Your task to perform on an android device: change the clock display to show seconds Image 0: 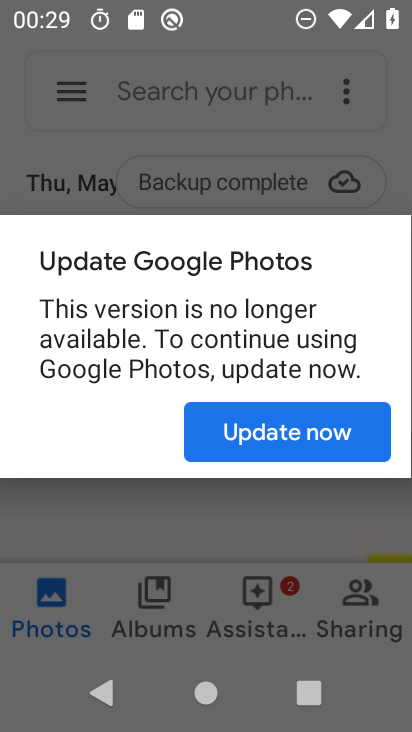
Step 0: press home button
Your task to perform on an android device: change the clock display to show seconds Image 1: 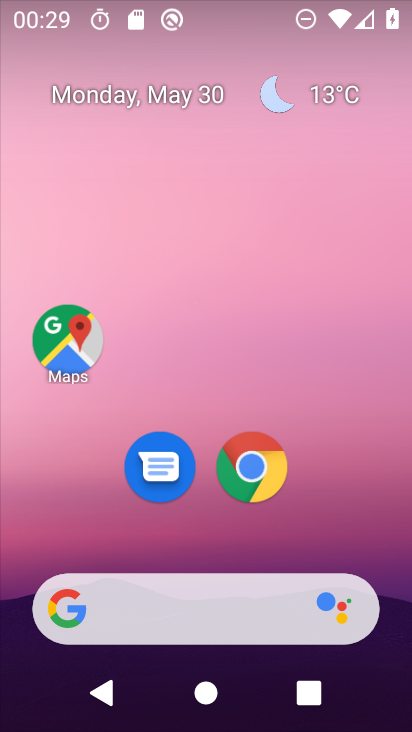
Step 1: drag from (204, 537) to (191, 185)
Your task to perform on an android device: change the clock display to show seconds Image 2: 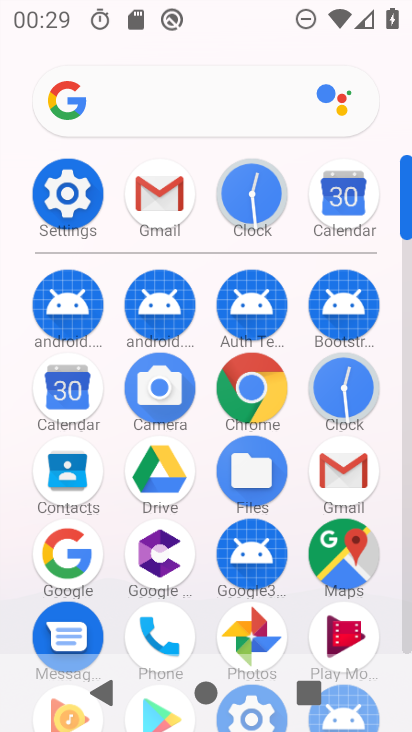
Step 2: click (237, 202)
Your task to perform on an android device: change the clock display to show seconds Image 3: 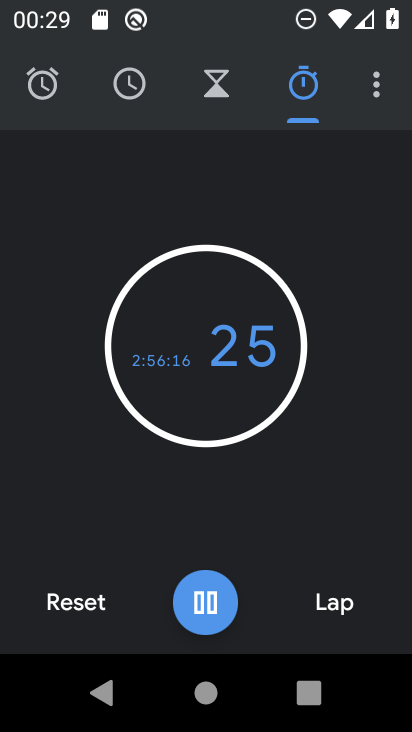
Step 3: click (363, 96)
Your task to perform on an android device: change the clock display to show seconds Image 4: 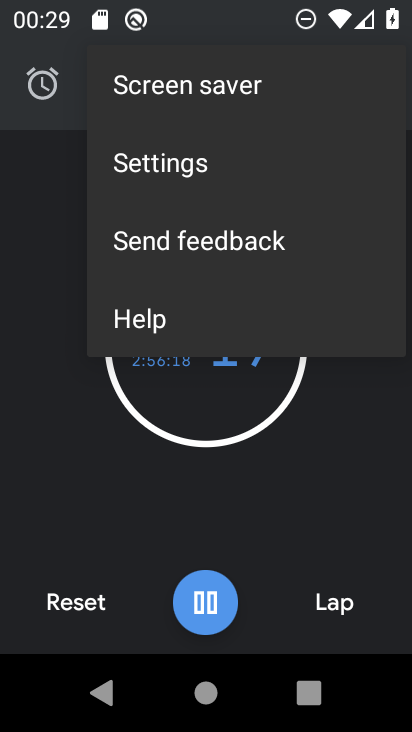
Step 4: click (239, 163)
Your task to perform on an android device: change the clock display to show seconds Image 5: 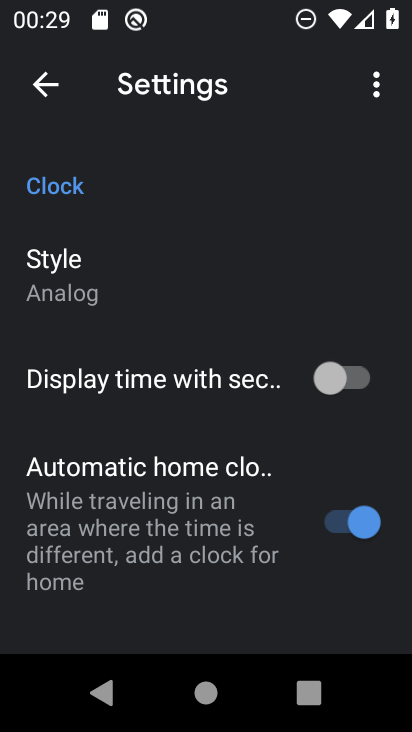
Step 5: drag from (173, 514) to (194, 285)
Your task to perform on an android device: change the clock display to show seconds Image 6: 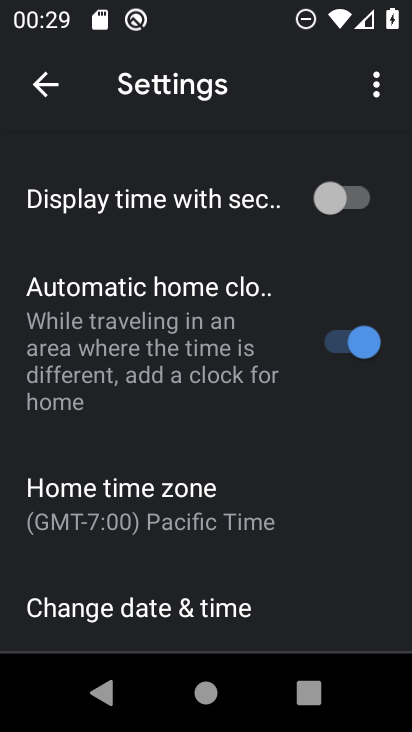
Step 6: click (181, 574)
Your task to perform on an android device: change the clock display to show seconds Image 7: 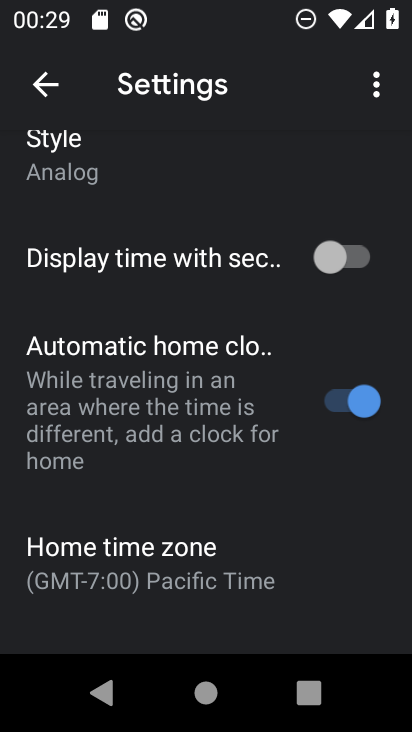
Step 7: click (339, 265)
Your task to perform on an android device: change the clock display to show seconds Image 8: 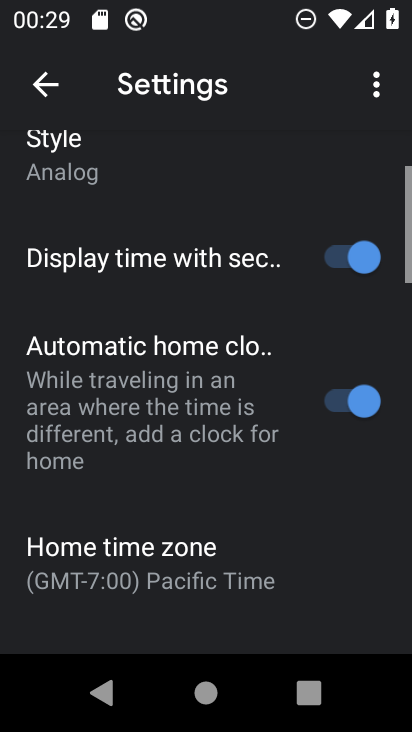
Step 8: task complete